Your task to perform on an android device: Go to internet settings Image 0: 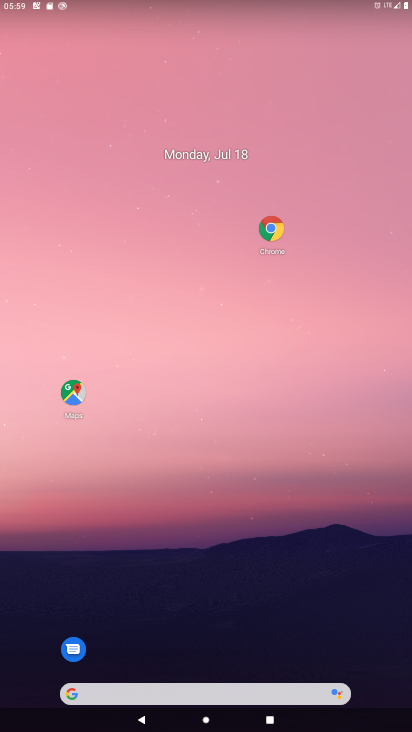
Step 0: drag from (215, 11) to (173, 488)
Your task to perform on an android device: Go to internet settings Image 1: 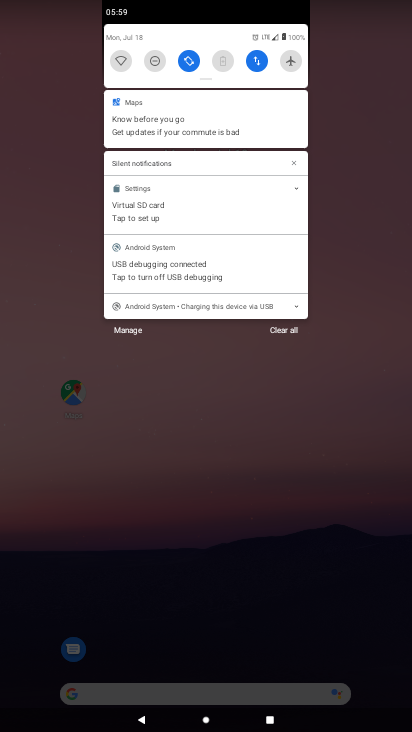
Step 1: click (260, 59)
Your task to perform on an android device: Go to internet settings Image 2: 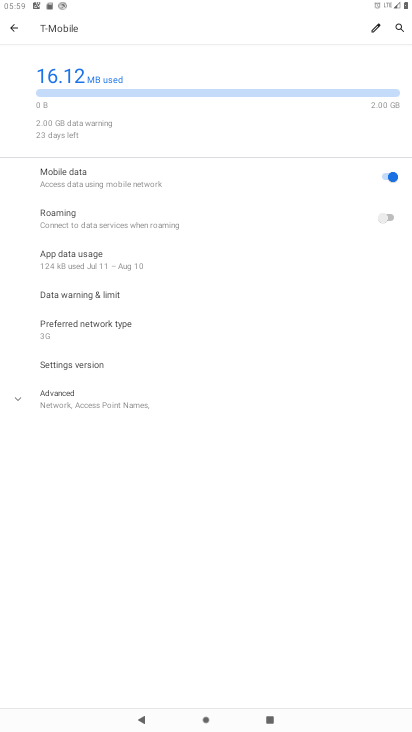
Step 2: task complete